Your task to perform on an android device: turn on priority inbox in the gmail app Image 0: 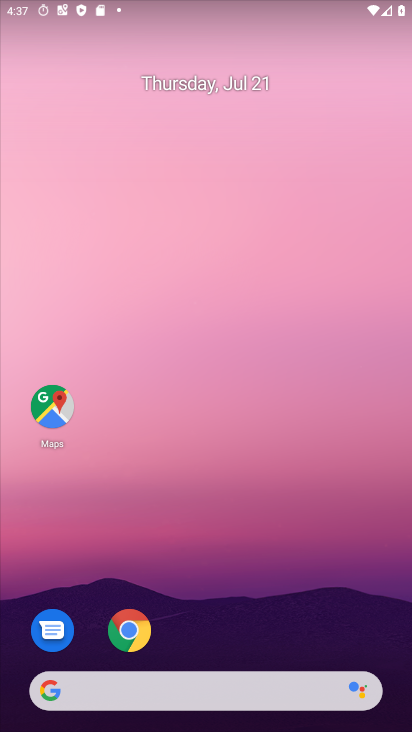
Step 0: drag from (200, 687) to (258, 0)
Your task to perform on an android device: turn on priority inbox in the gmail app Image 1: 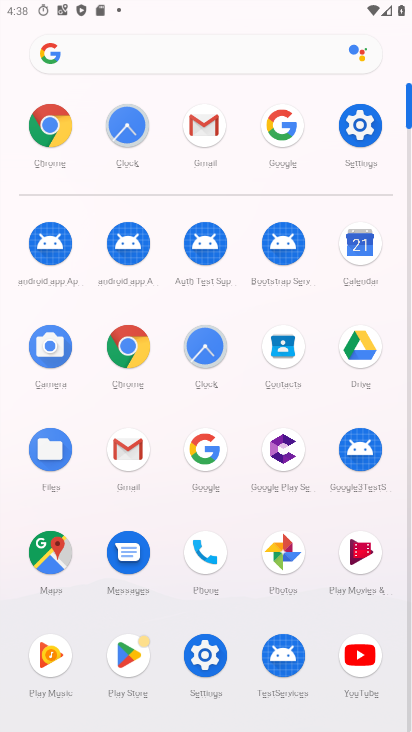
Step 1: click (202, 122)
Your task to perform on an android device: turn on priority inbox in the gmail app Image 2: 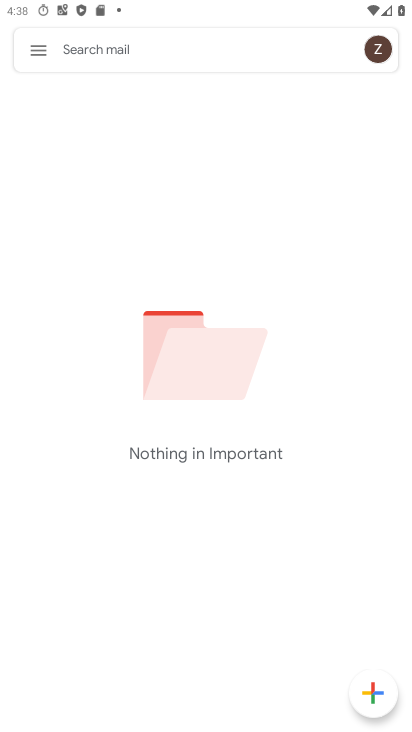
Step 2: click (37, 50)
Your task to perform on an android device: turn on priority inbox in the gmail app Image 3: 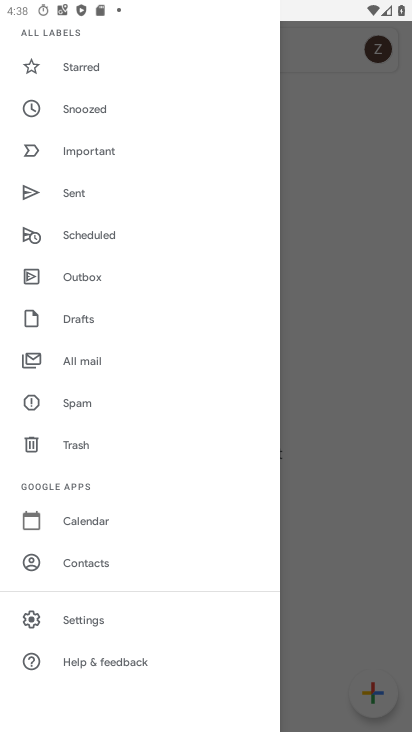
Step 3: click (87, 618)
Your task to perform on an android device: turn on priority inbox in the gmail app Image 4: 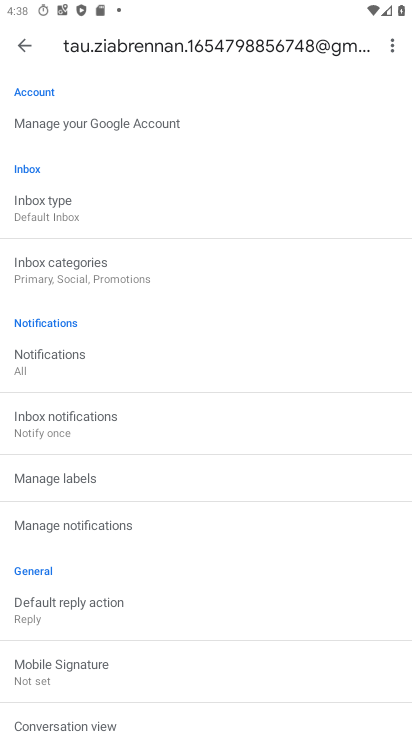
Step 4: click (46, 207)
Your task to perform on an android device: turn on priority inbox in the gmail app Image 5: 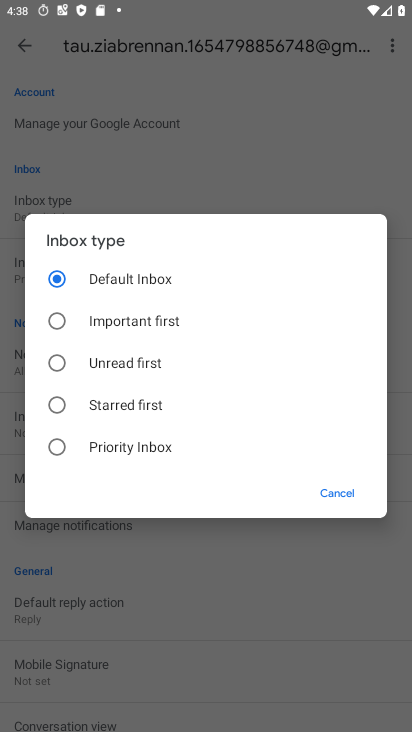
Step 5: click (58, 449)
Your task to perform on an android device: turn on priority inbox in the gmail app Image 6: 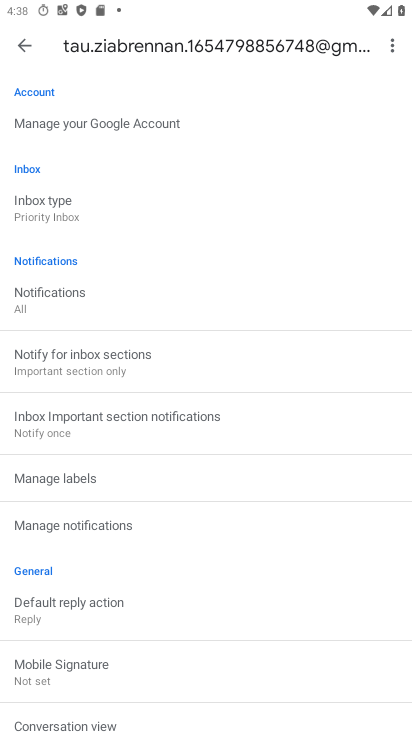
Step 6: task complete